Your task to perform on an android device: Open accessibility settings Image 0: 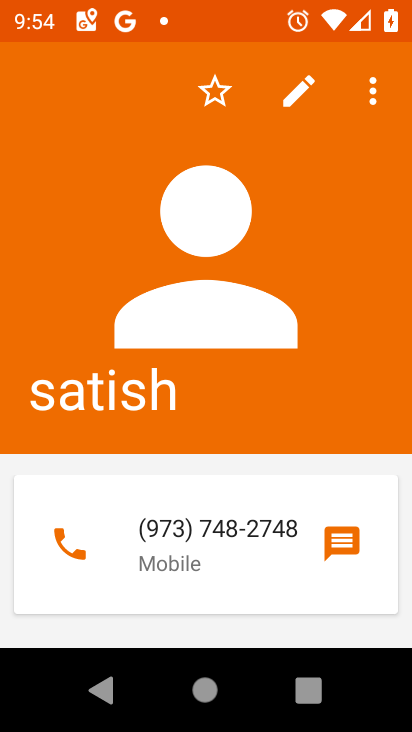
Step 0: press home button
Your task to perform on an android device: Open accessibility settings Image 1: 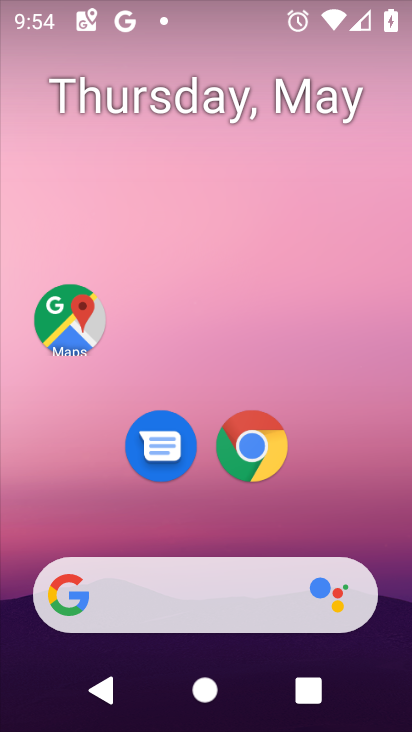
Step 1: drag from (383, 503) to (372, 105)
Your task to perform on an android device: Open accessibility settings Image 2: 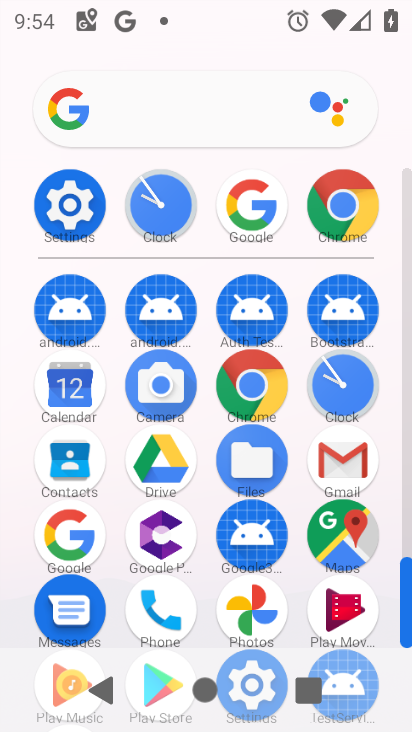
Step 2: click (79, 198)
Your task to perform on an android device: Open accessibility settings Image 3: 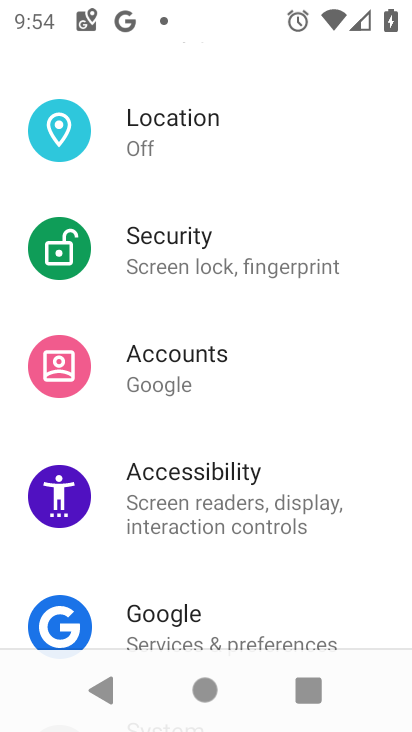
Step 3: click (230, 498)
Your task to perform on an android device: Open accessibility settings Image 4: 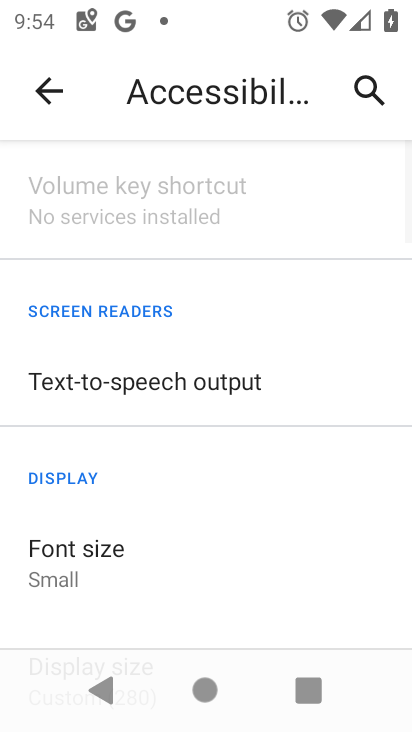
Step 4: task complete